Your task to perform on an android device: turn on bluetooth scan Image 0: 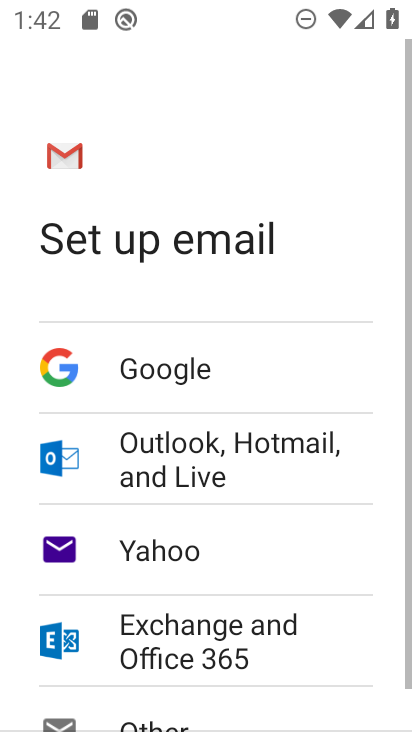
Step 0: press home button
Your task to perform on an android device: turn on bluetooth scan Image 1: 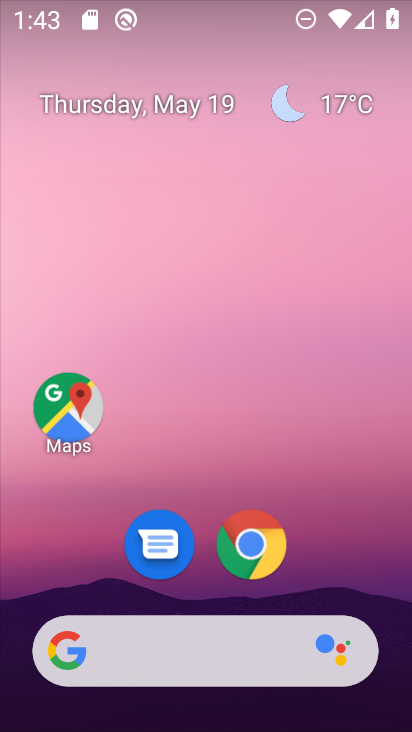
Step 1: drag from (188, 689) to (188, 231)
Your task to perform on an android device: turn on bluetooth scan Image 2: 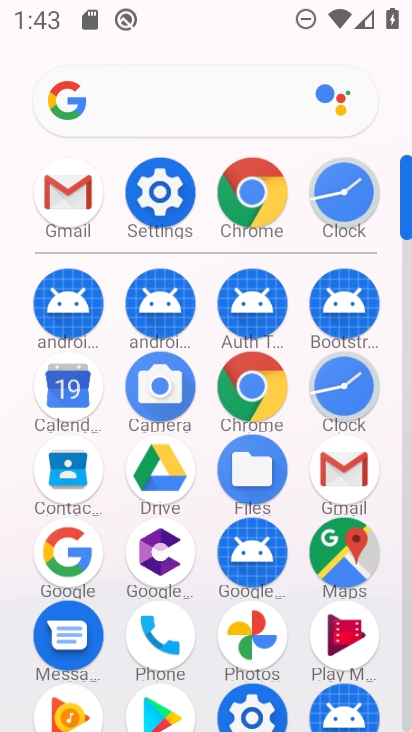
Step 2: click (151, 196)
Your task to perform on an android device: turn on bluetooth scan Image 3: 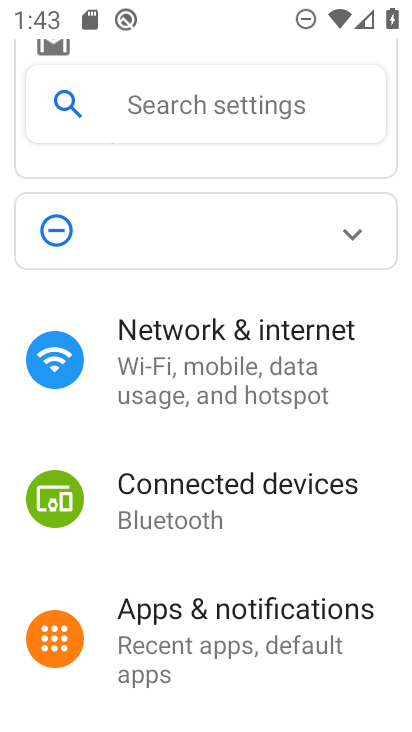
Step 3: drag from (215, 654) to (221, 259)
Your task to perform on an android device: turn on bluetooth scan Image 4: 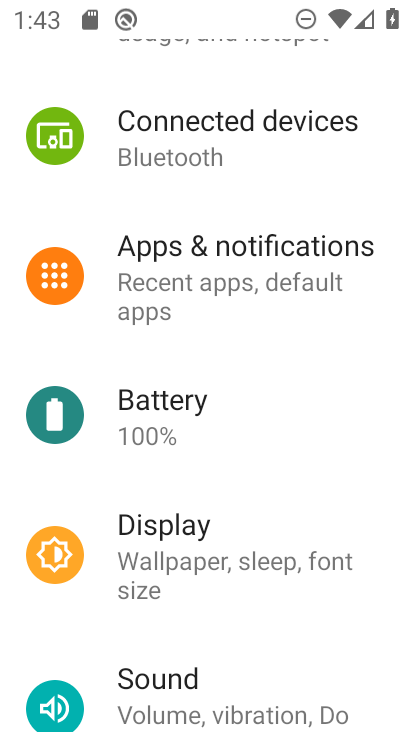
Step 4: drag from (198, 683) to (206, 276)
Your task to perform on an android device: turn on bluetooth scan Image 5: 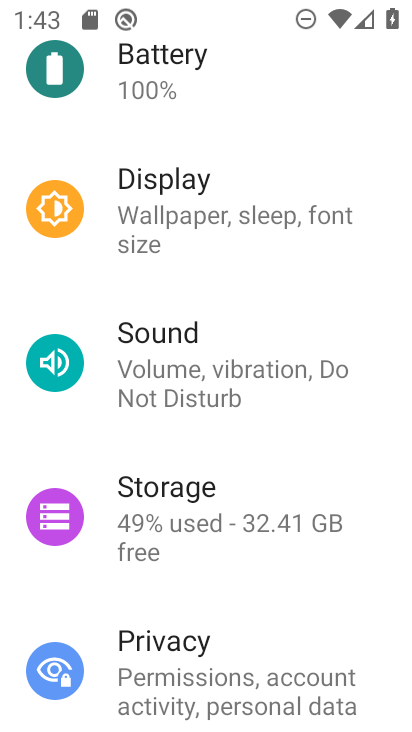
Step 5: drag from (187, 641) to (185, 338)
Your task to perform on an android device: turn on bluetooth scan Image 6: 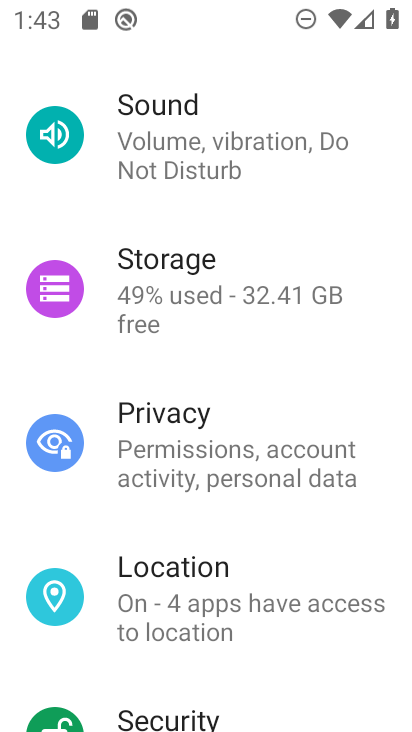
Step 6: click (178, 604)
Your task to perform on an android device: turn on bluetooth scan Image 7: 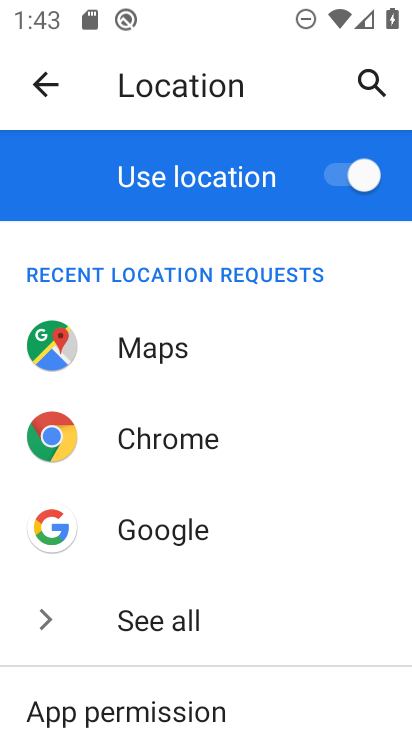
Step 7: drag from (153, 682) to (149, 315)
Your task to perform on an android device: turn on bluetooth scan Image 8: 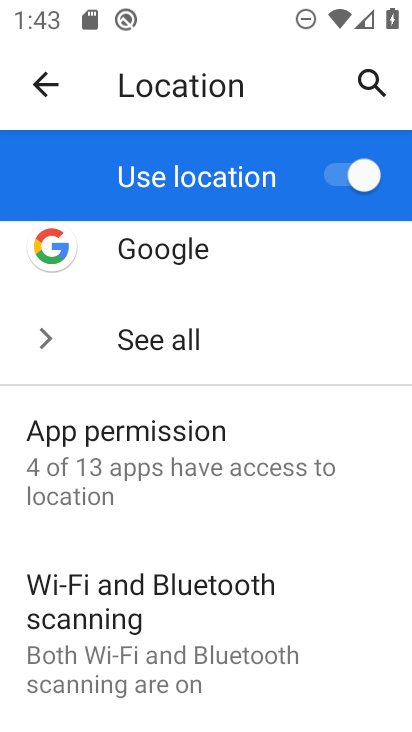
Step 8: drag from (189, 690) to (188, 297)
Your task to perform on an android device: turn on bluetooth scan Image 9: 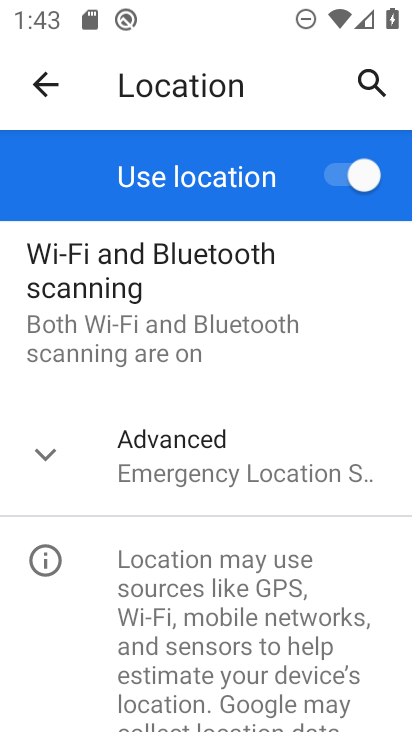
Step 9: click (108, 338)
Your task to perform on an android device: turn on bluetooth scan Image 10: 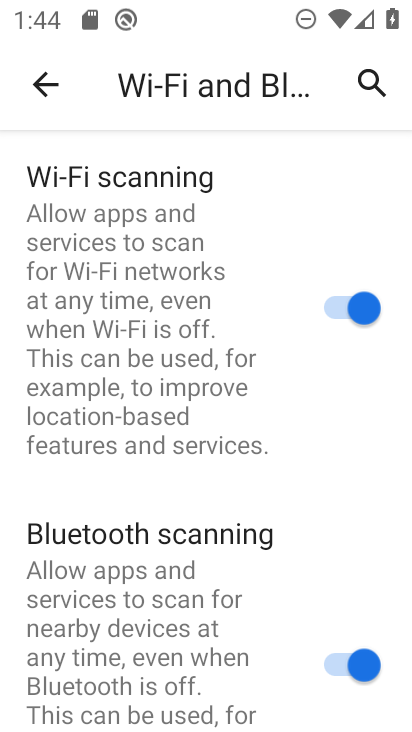
Step 10: task complete